Your task to perform on an android device: Open the web browser Image 0: 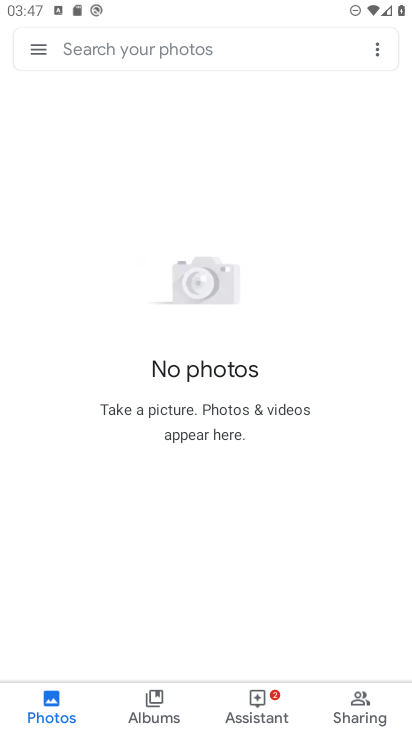
Step 0: press home button
Your task to perform on an android device: Open the web browser Image 1: 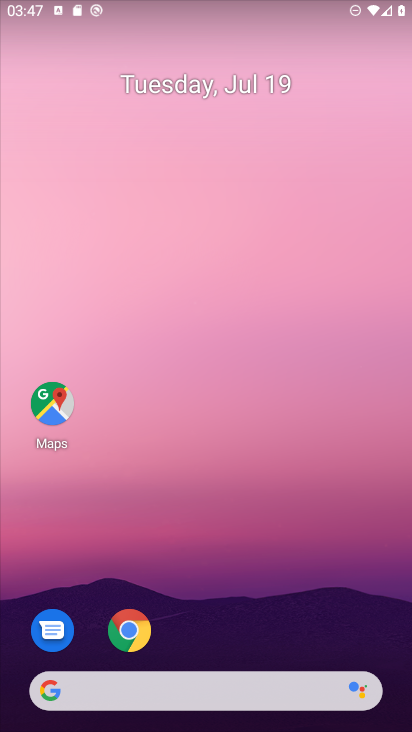
Step 1: click (130, 630)
Your task to perform on an android device: Open the web browser Image 2: 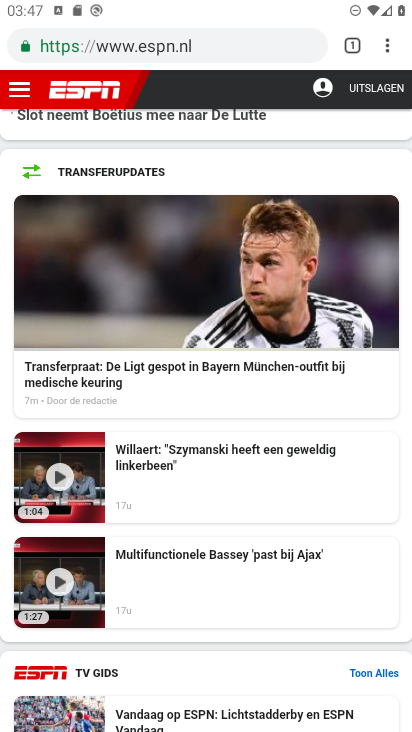
Step 2: task complete